Your task to perform on an android device: Open calendar and show me the second week of next month Image 0: 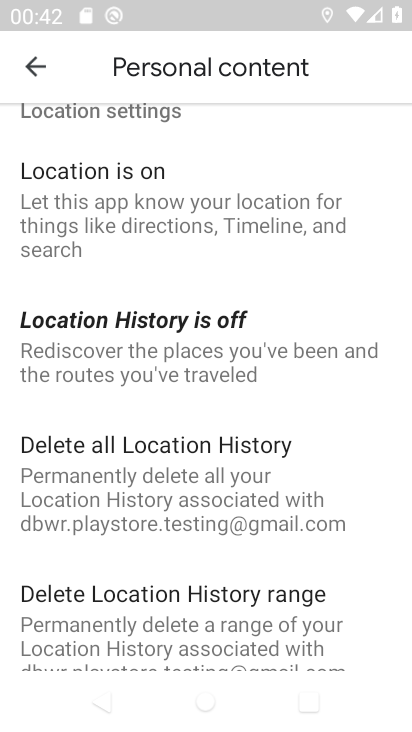
Step 0: press home button
Your task to perform on an android device: Open calendar and show me the second week of next month Image 1: 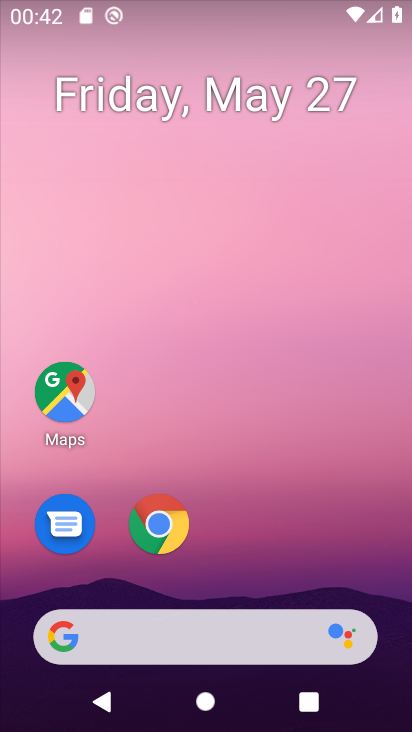
Step 1: drag from (257, 550) to (287, 44)
Your task to perform on an android device: Open calendar and show me the second week of next month Image 2: 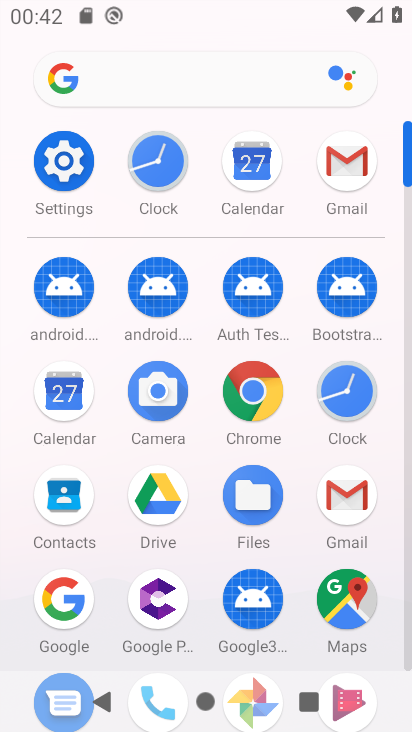
Step 2: click (252, 158)
Your task to perform on an android device: Open calendar and show me the second week of next month Image 3: 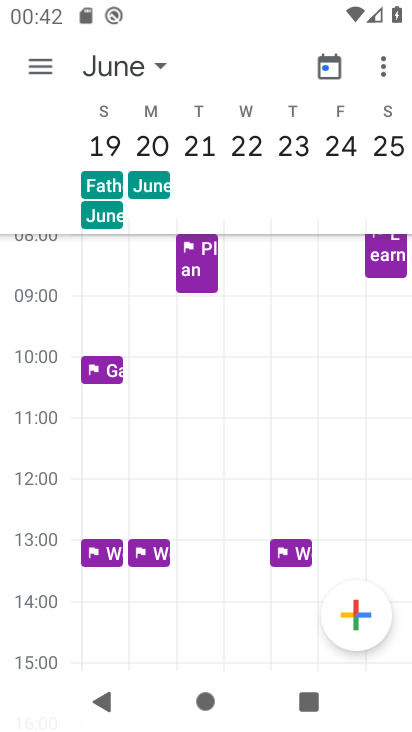
Step 3: task complete